Your task to perform on an android device: turn off picture-in-picture Image 0: 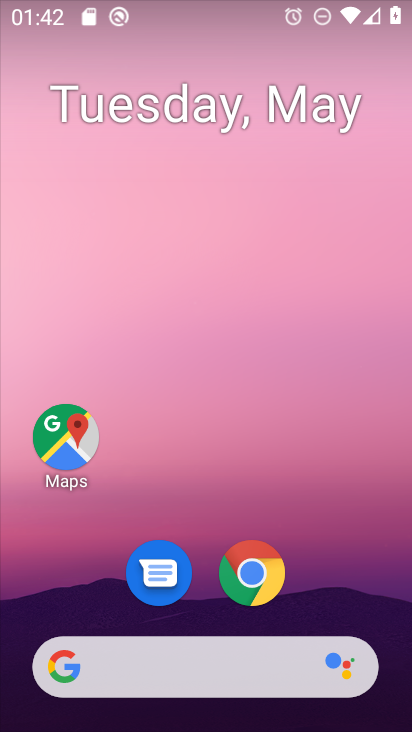
Step 0: click (249, 580)
Your task to perform on an android device: turn off picture-in-picture Image 1: 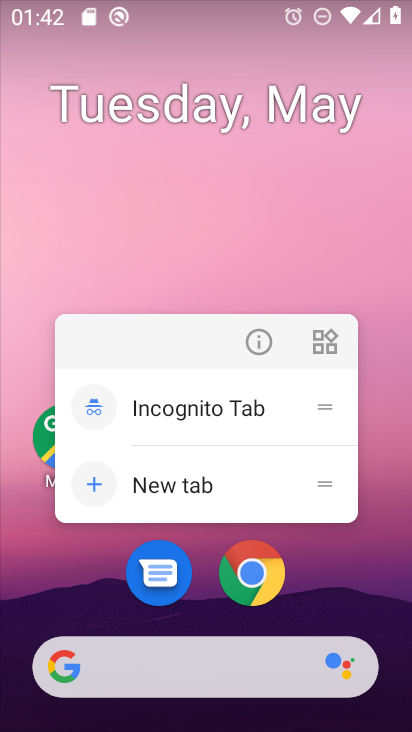
Step 1: click (252, 334)
Your task to perform on an android device: turn off picture-in-picture Image 2: 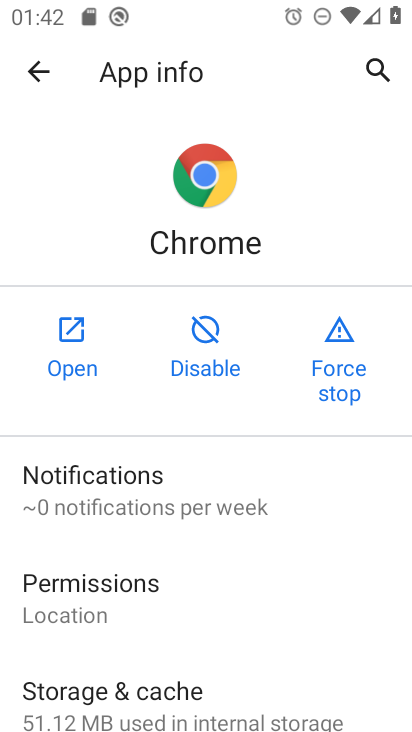
Step 2: drag from (271, 678) to (276, 34)
Your task to perform on an android device: turn off picture-in-picture Image 3: 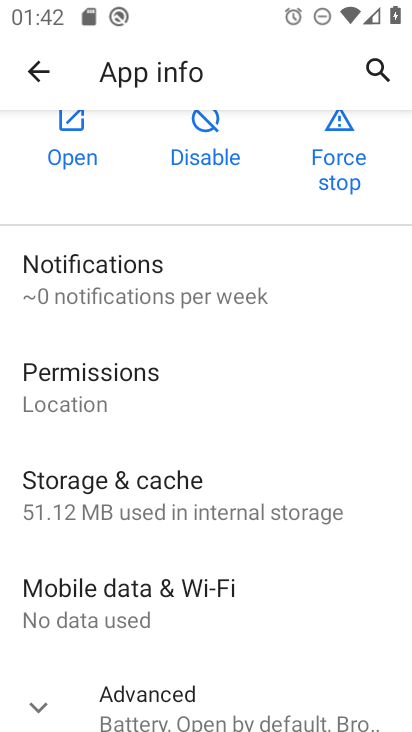
Step 3: click (263, 716)
Your task to perform on an android device: turn off picture-in-picture Image 4: 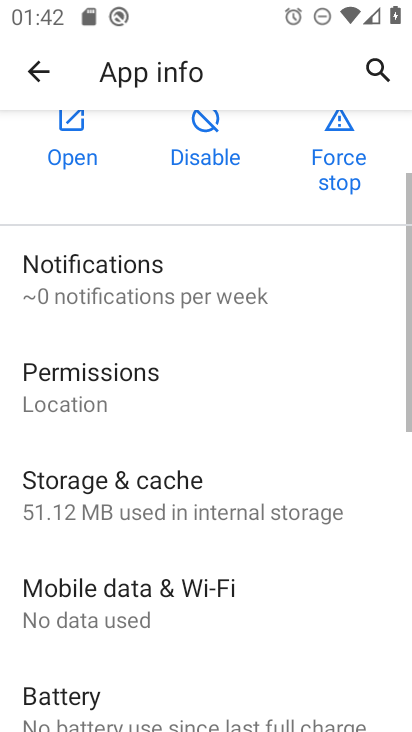
Step 4: drag from (275, 705) to (253, 94)
Your task to perform on an android device: turn off picture-in-picture Image 5: 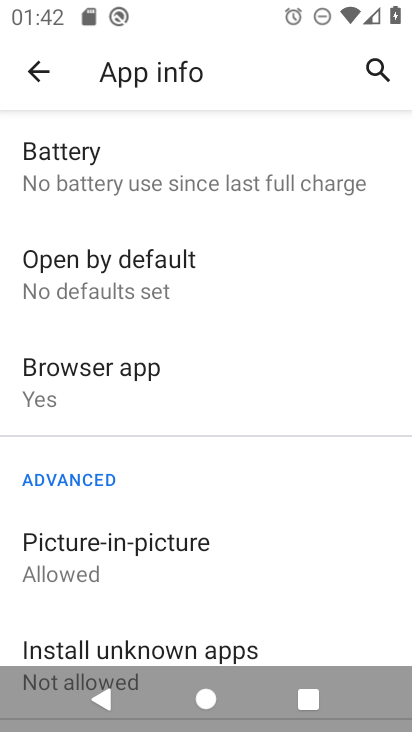
Step 5: drag from (264, 551) to (279, 309)
Your task to perform on an android device: turn off picture-in-picture Image 6: 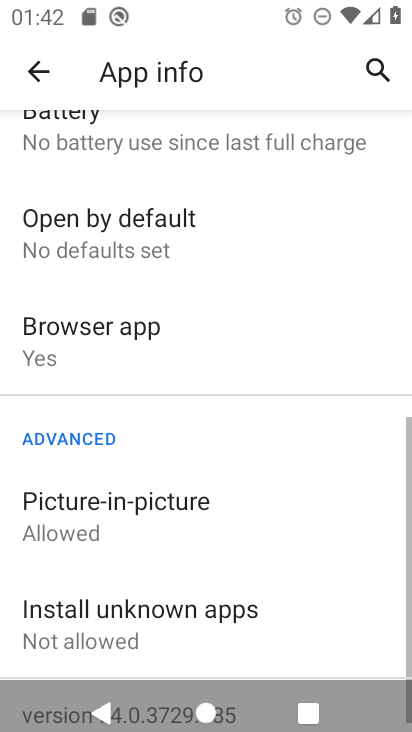
Step 6: click (208, 542)
Your task to perform on an android device: turn off picture-in-picture Image 7: 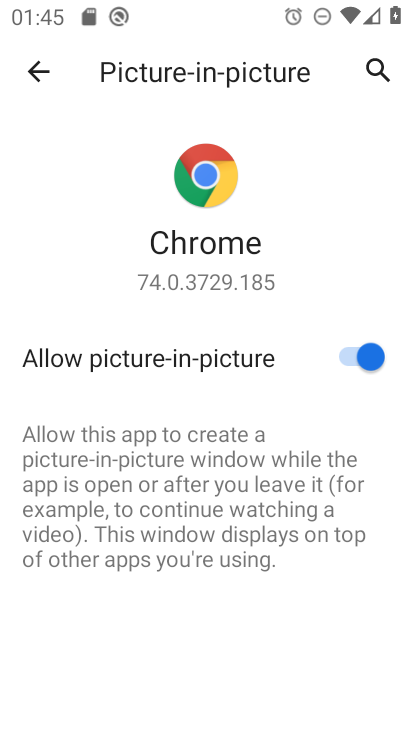
Step 7: task complete